Your task to perform on an android device: check google app version Image 0: 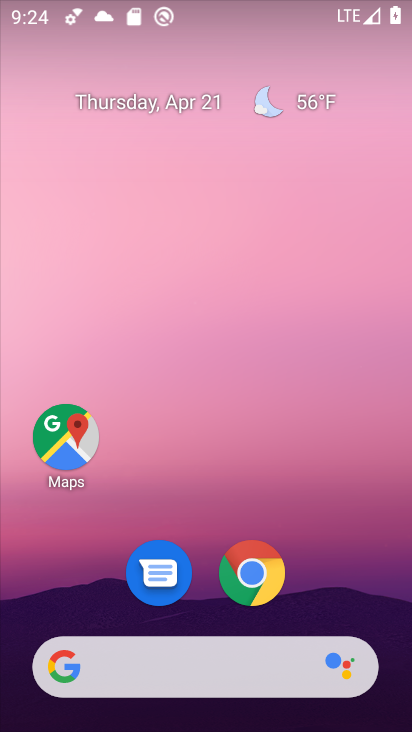
Step 0: drag from (331, 529) to (299, 95)
Your task to perform on an android device: check google app version Image 1: 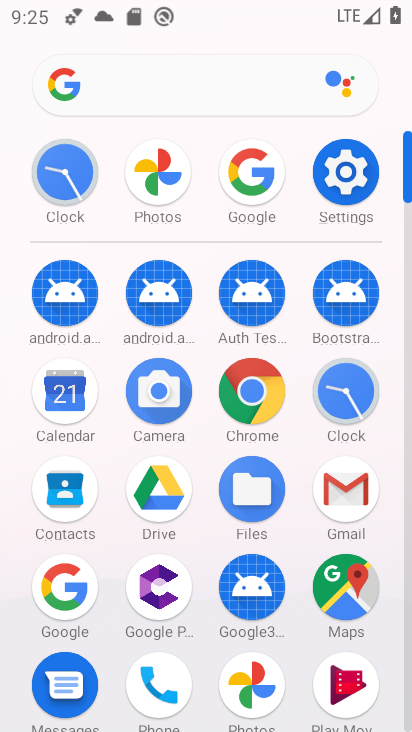
Step 1: click (67, 597)
Your task to perform on an android device: check google app version Image 2: 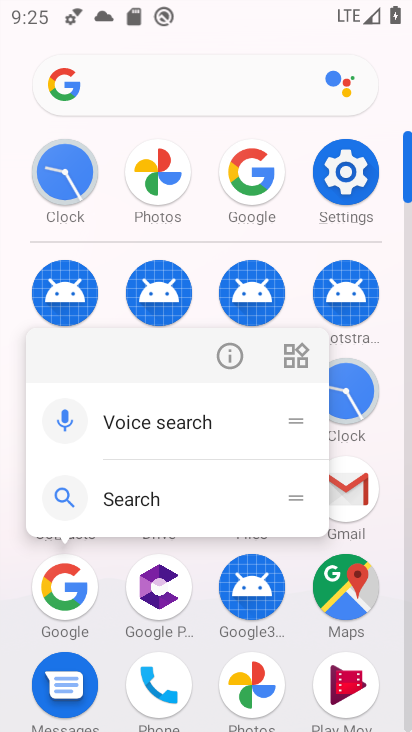
Step 2: click (231, 362)
Your task to perform on an android device: check google app version Image 3: 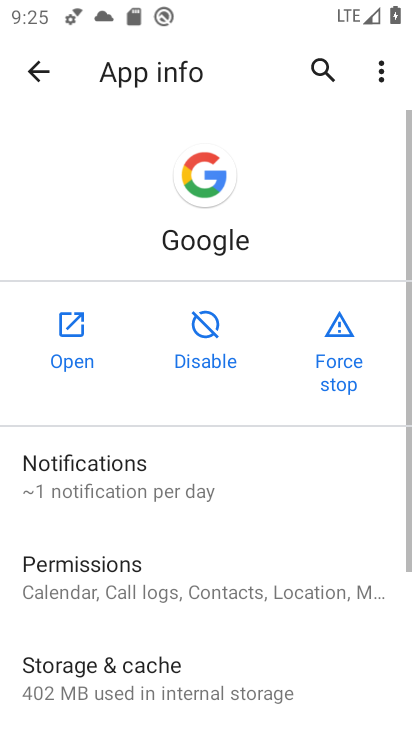
Step 3: drag from (169, 531) to (195, 263)
Your task to perform on an android device: check google app version Image 4: 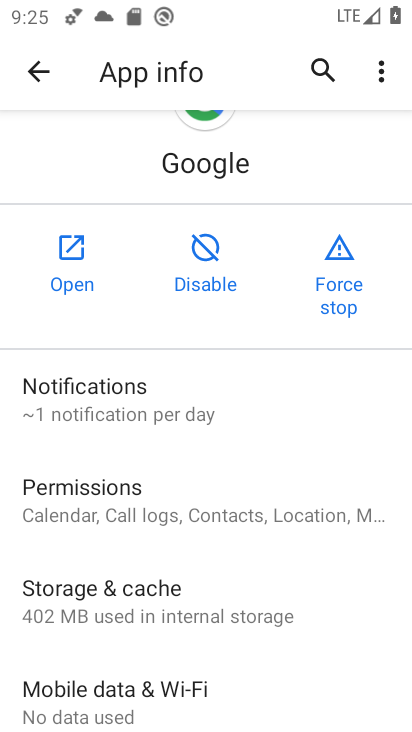
Step 4: drag from (136, 557) to (204, 281)
Your task to perform on an android device: check google app version Image 5: 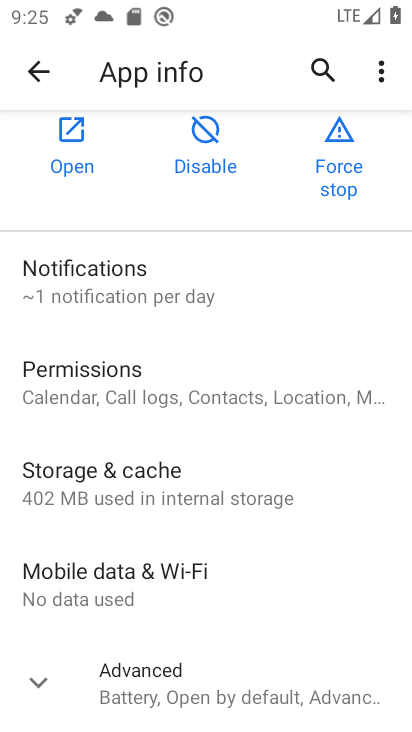
Step 5: click (149, 671)
Your task to perform on an android device: check google app version Image 6: 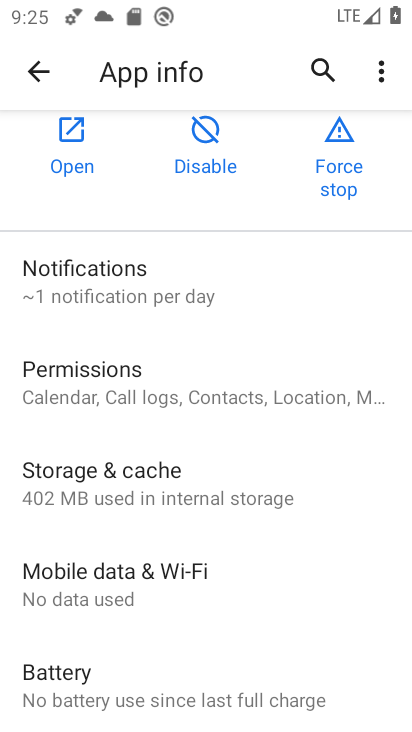
Step 6: task complete